Your task to perform on an android device: create a new album in the google photos Image 0: 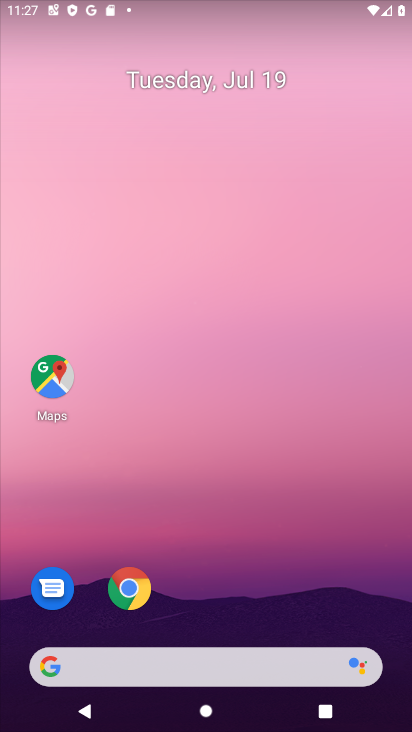
Step 0: drag from (243, 729) to (216, 203)
Your task to perform on an android device: create a new album in the google photos Image 1: 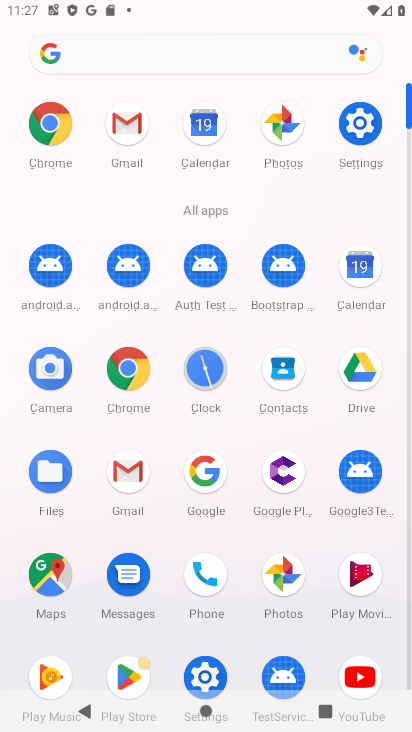
Step 1: click (285, 580)
Your task to perform on an android device: create a new album in the google photos Image 2: 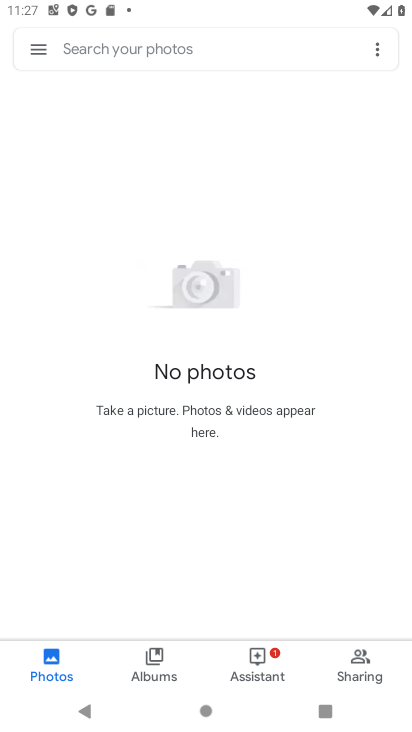
Step 2: click (378, 48)
Your task to perform on an android device: create a new album in the google photos Image 3: 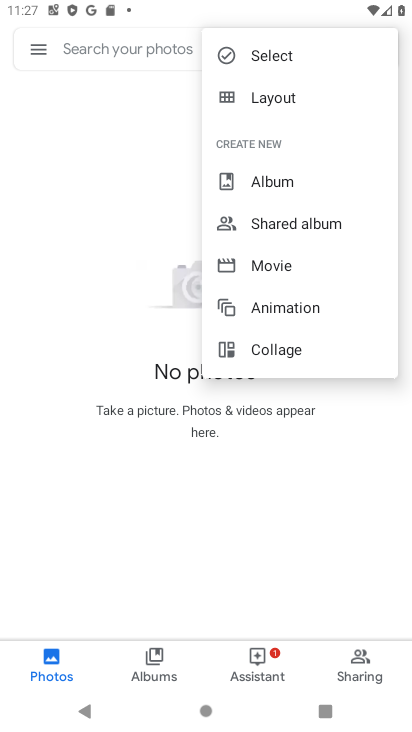
Step 3: click (264, 180)
Your task to perform on an android device: create a new album in the google photos Image 4: 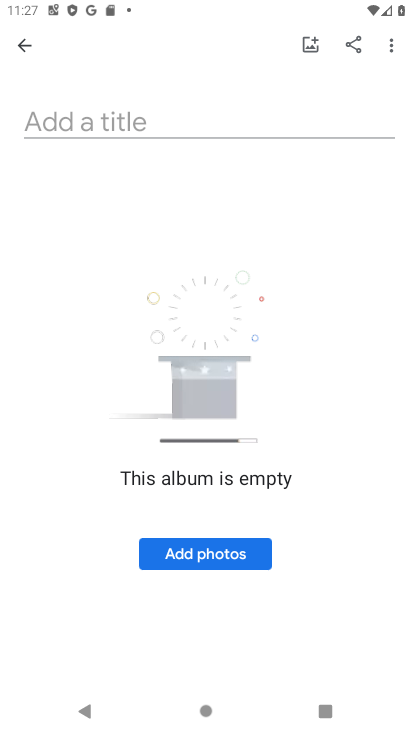
Step 4: click (160, 129)
Your task to perform on an android device: create a new album in the google photos Image 5: 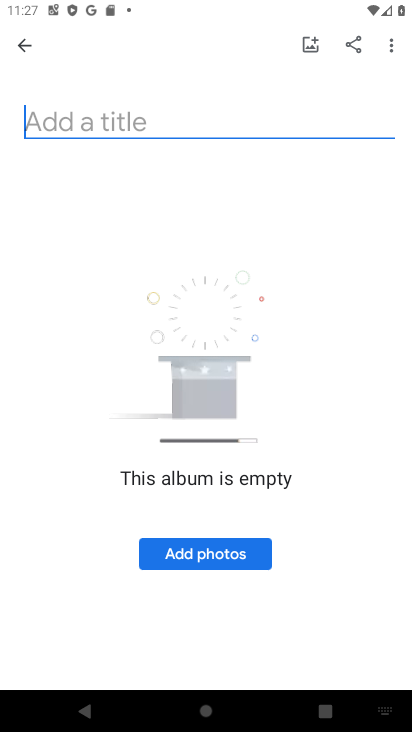
Step 5: type "nair"
Your task to perform on an android device: create a new album in the google photos Image 6: 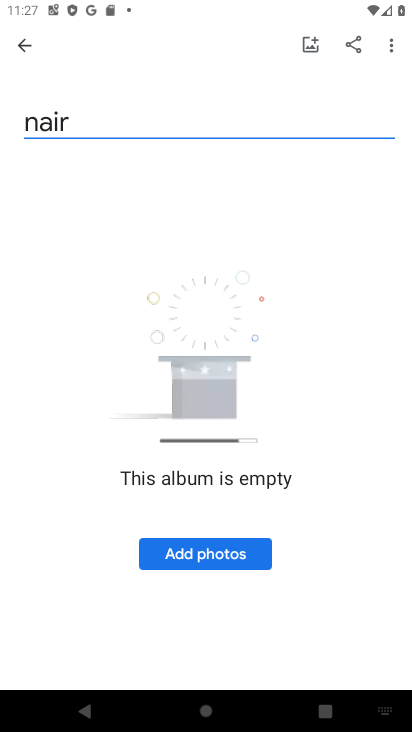
Step 6: click (118, 269)
Your task to perform on an android device: create a new album in the google photos Image 7: 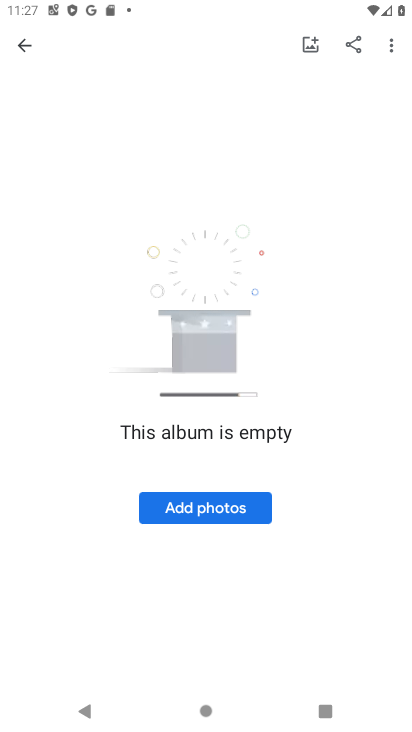
Step 7: click (344, 485)
Your task to perform on an android device: create a new album in the google photos Image 8: 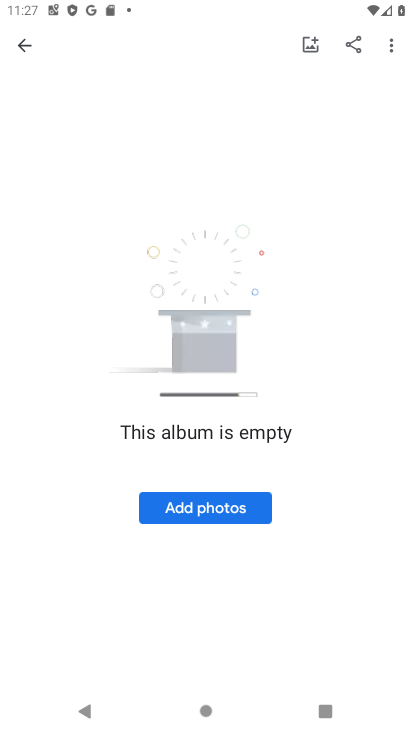
Step 8: task complete